Your task to perform on an android device: delete location history Image 0: 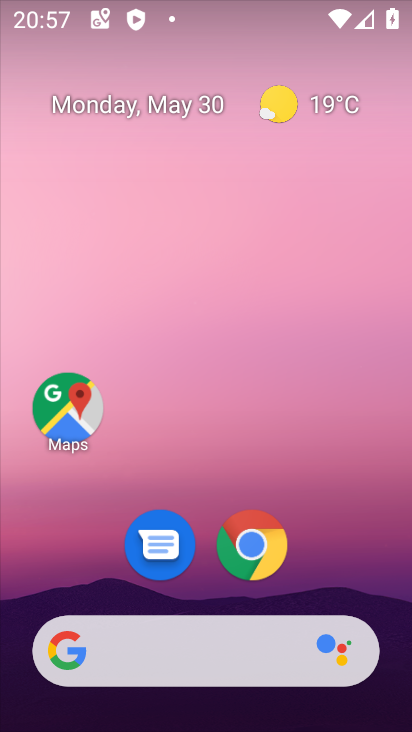
Step 0: drag from (339, 553) to (343, 107)
Your task to perform on an android device: delete location history Image 1: 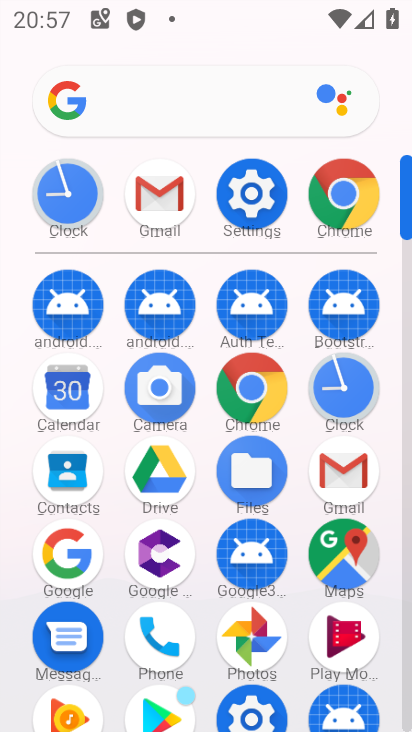
Step 1: click (255, 712)
Your task to perform on an android device: delete location history Image 2: 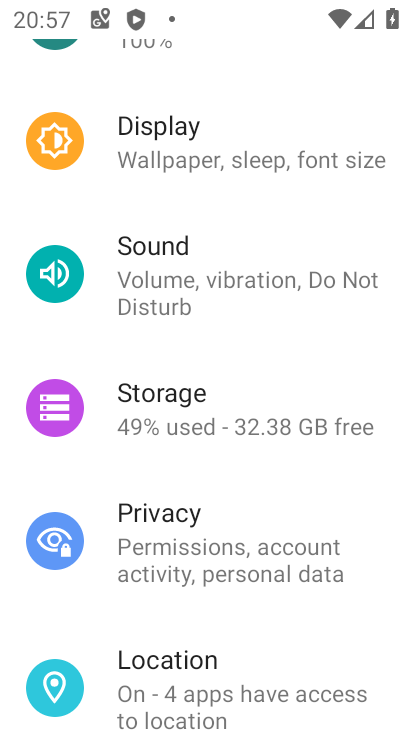
Step 2: click (218, 688)
Your task to perform on an android device: delete location history Image 3: 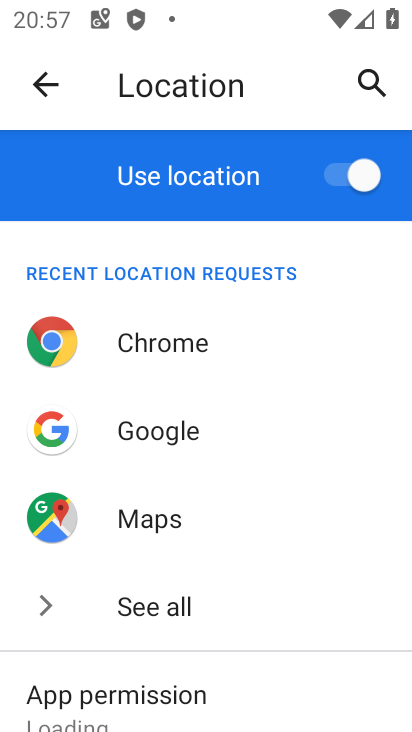
Step 3: drag from (273, 634) to (290, 352)
Your task to perform on an android device: delete location history Image 4: 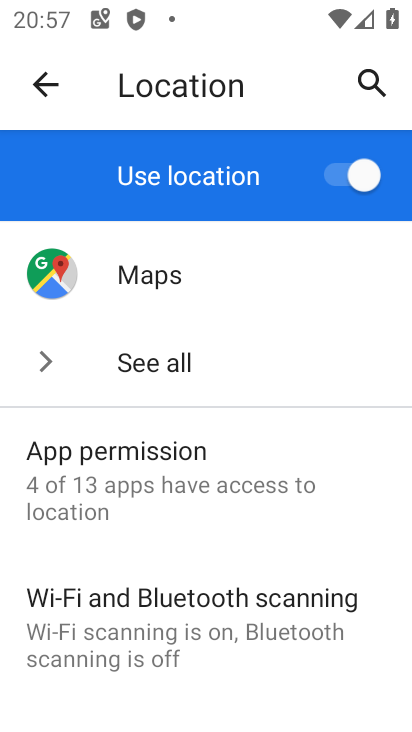
Step 4: drag from (291, 556) to (321, 220)
Your task to perform on an android device: delete location history Image 5: 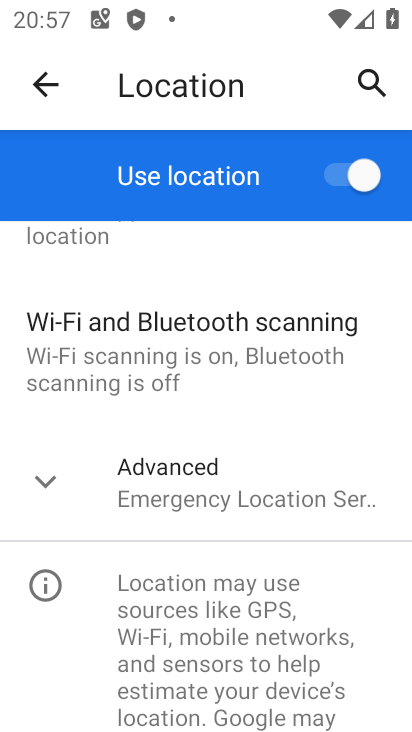
Step 5: click (262, 492)
Your task to perform on an android device: delete location history Image 6: 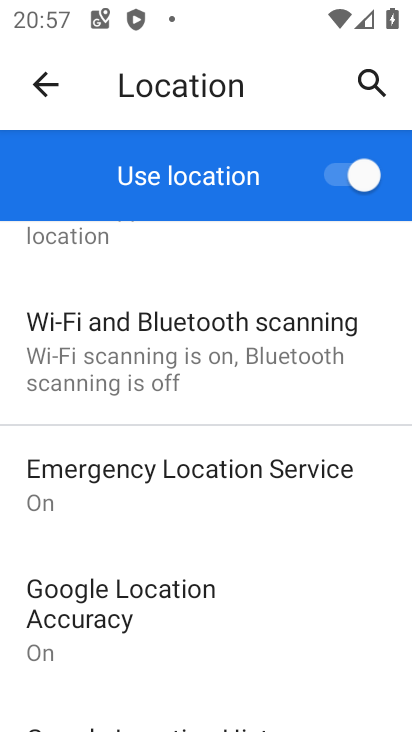
Step 6: drag from (284, 614) to (280, 414)
Your task to perform on an android device: delete location history Image 7: 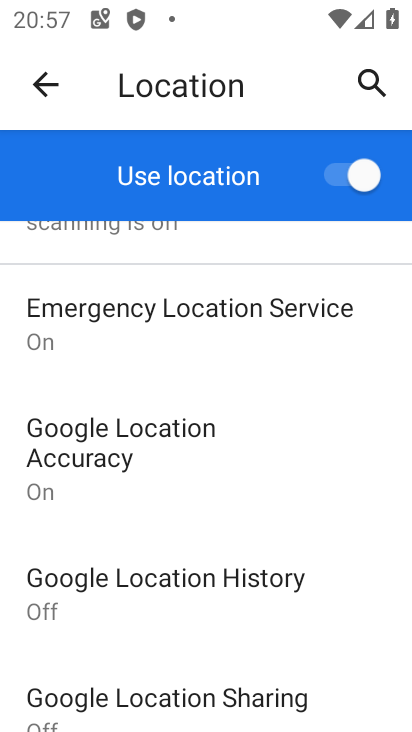
Step 7: click (179, 585)
Your task to perform on an android device: delete location history Image 8: 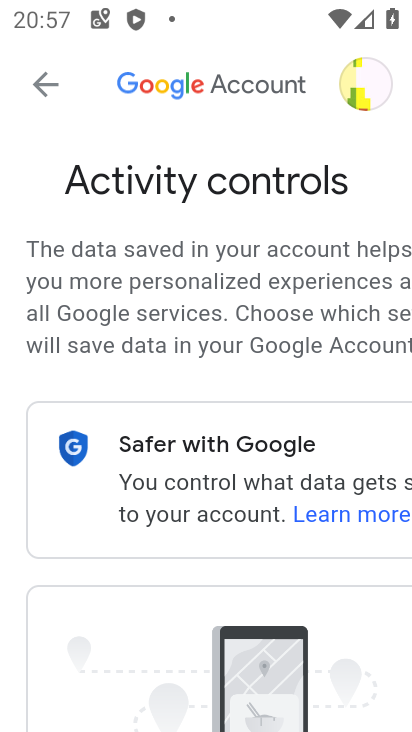
Step 8: drag from (317, 600) to (280, 362)
Your task to perform on an android device: delete location history Image 9: 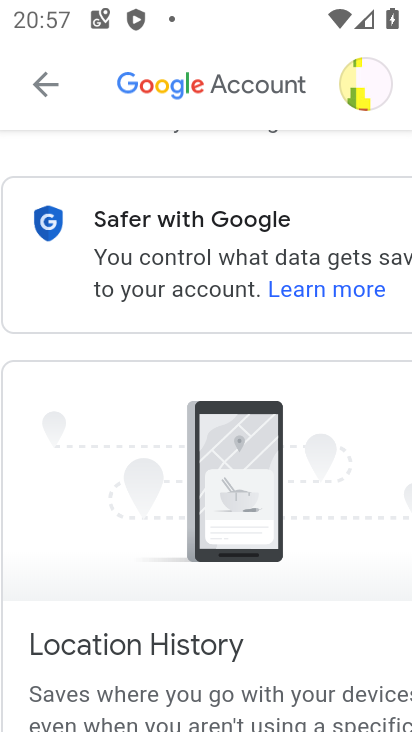
Step 9: drag from (290, 613) to (269, 404)
Your task to perform on an android device: delete location history Image 10: 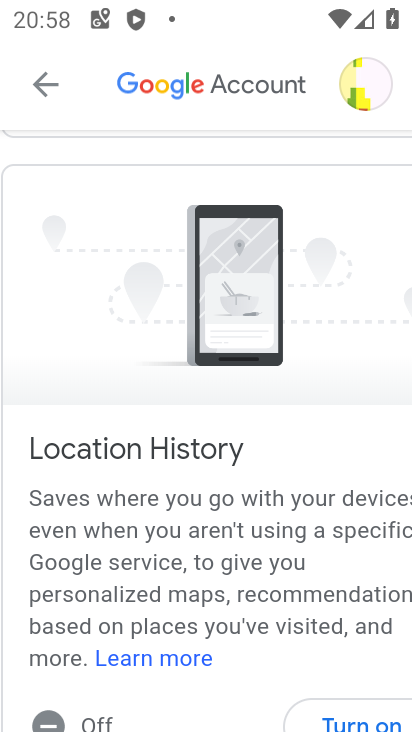
Step 10: drag from (269, 679) to (279, 421)
Your task to perform on an android device: delete location history Image 11: 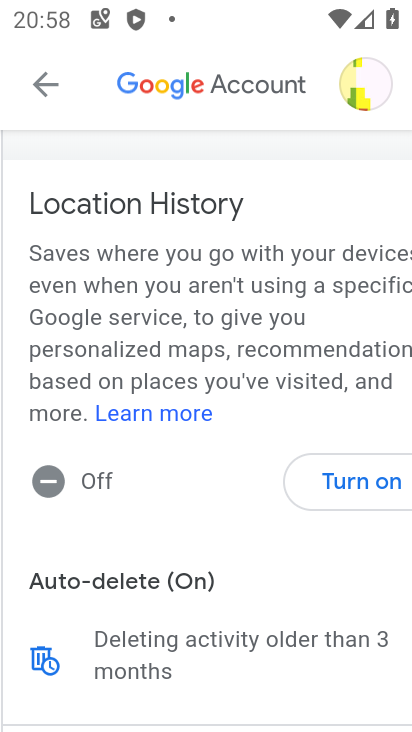
Step 11: drag from (273, 582) to (300, 338)
Your task to perform on an android device: delete location history Image 12: 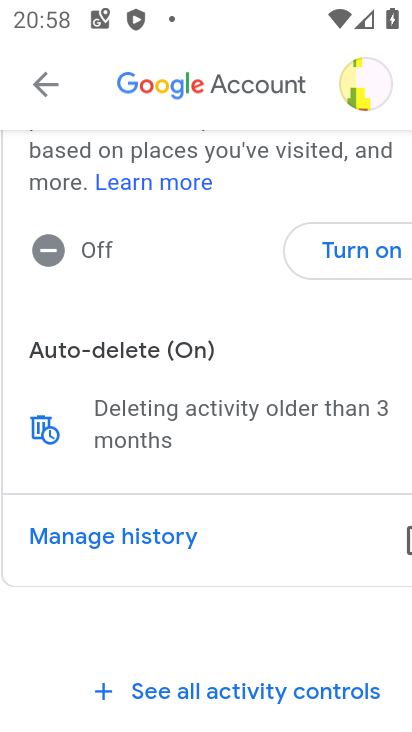
Step 12: click (155, 539)
Your task to perform on an android device: delete location history Image 13: 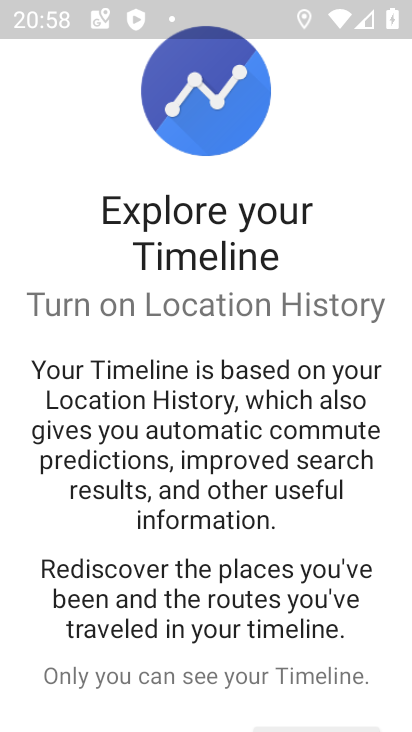
Step 13: drag from (284, 554) to (275, 374)
Your task to perform on an android device: delete location history Image 14: 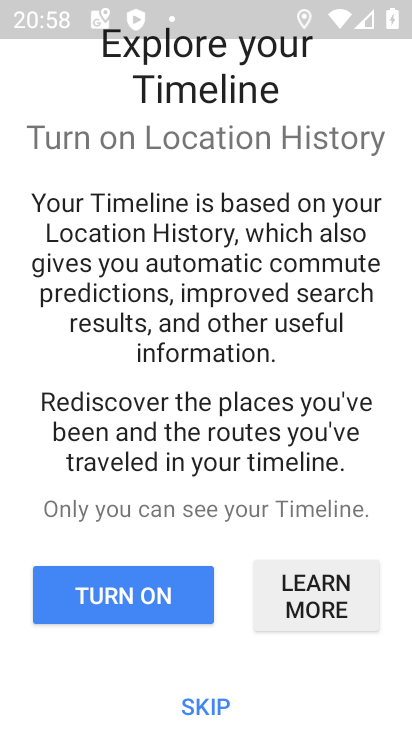
Step 14: click (173, 613)
Your task to perform on an android device: delete location history Image 15: 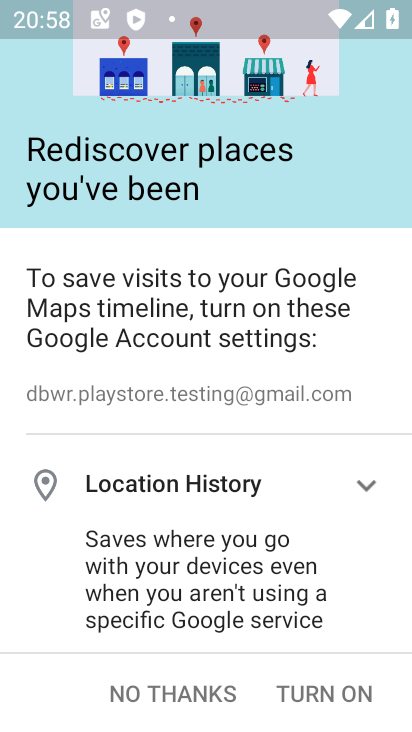
Step 15: drag from (253, 591) to (280, 340)
Your task to perform on an android device: delete location history Image 16: 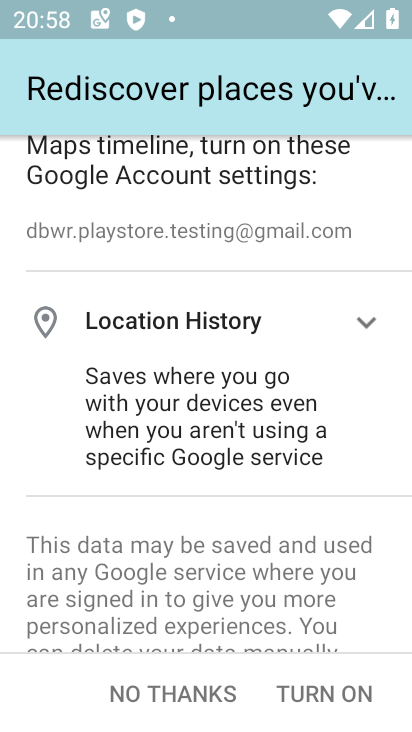
Step 16: click (318, 693)
Your task to perform on an android device: delete location history Image 17: 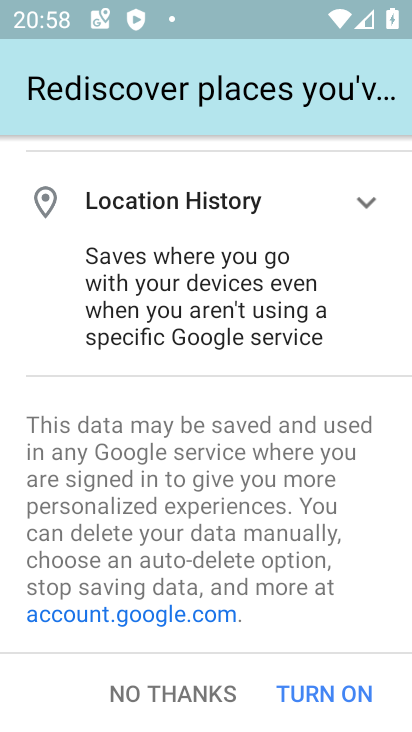
Step 17: click (317, 692)
Your task to perform on an android device: delete location history Image 18: 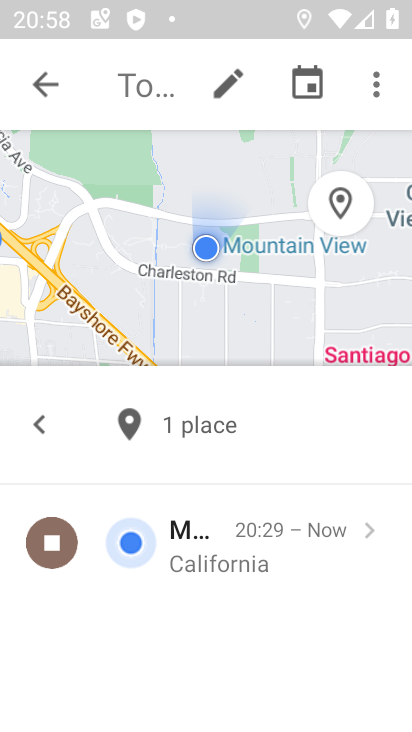
Step 18: click (387, 87)
Your task to perform on an android device: delete location history Image 19: 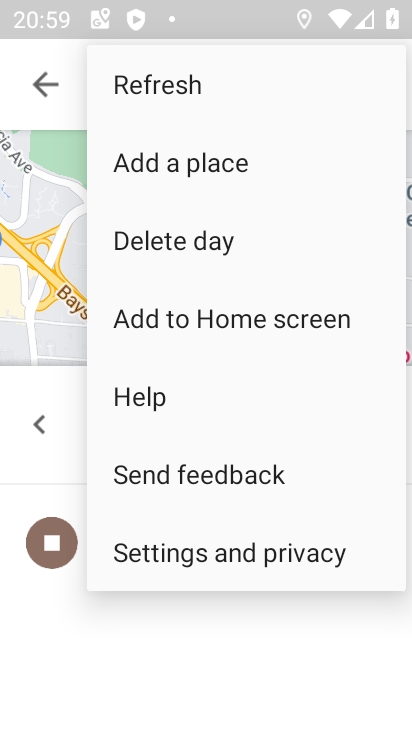
Step 19: click (229, 543)
Your task to perform on an android device: delete location history Image 20: 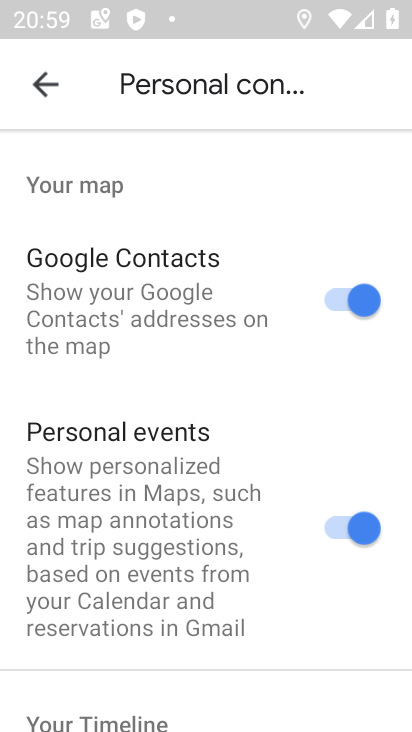
Step 20: drag from (233, 596) to (210, 308)
Your task to perform on an android device: delete location history Image 21: 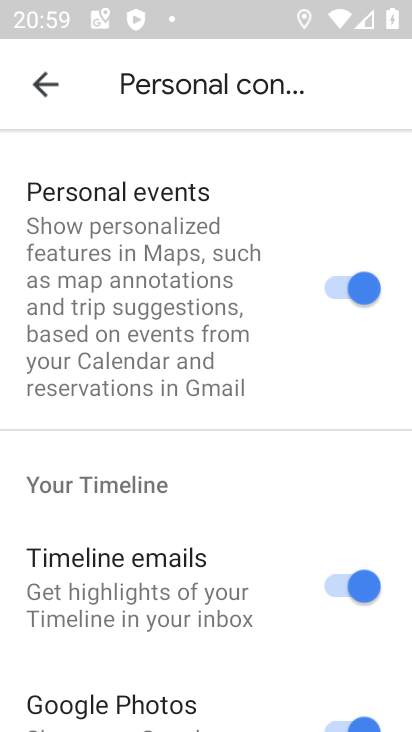
Step 21: drag from (192, 648) to (194, 356)
Your task to perform on an android device: delete location history Image 22: 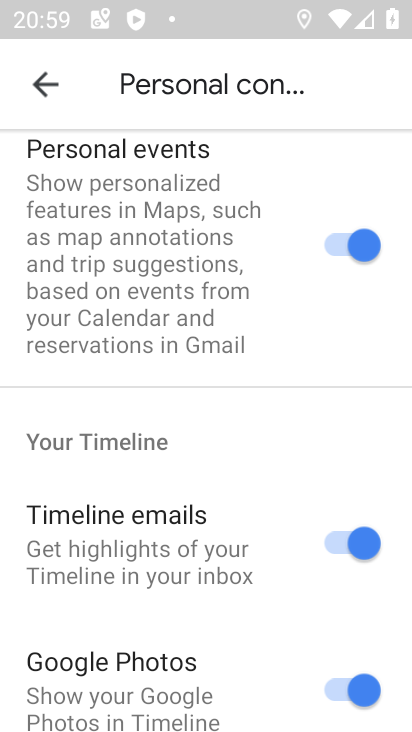
Step 22: drag from (181, 636) to (156, 368)
Your task to perform on an android device: delete location history Image 23: 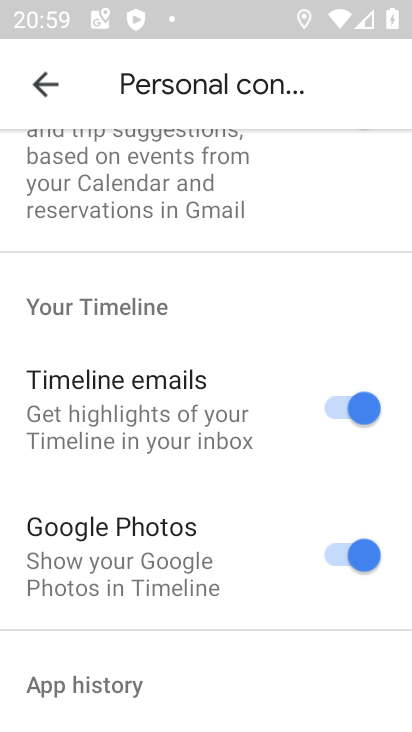
Step 23: drag from (193, 634) to (184, 260)
Your task to perform on an android device: delete location history Image 24: 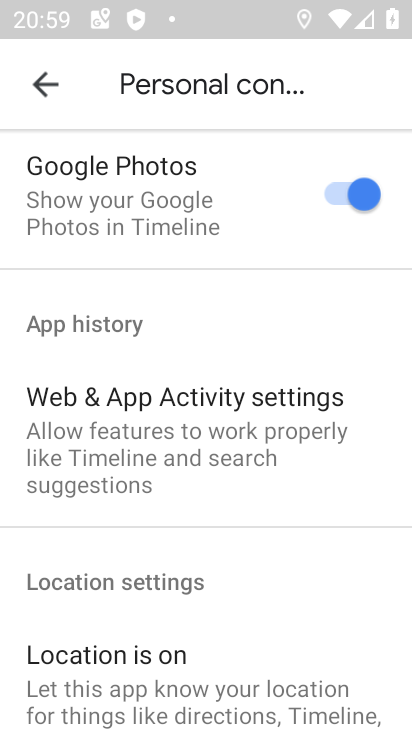
Step 24: drag from (219, 609) to (234, 170)
Your task to perform on an android device: delete location history Image 25: 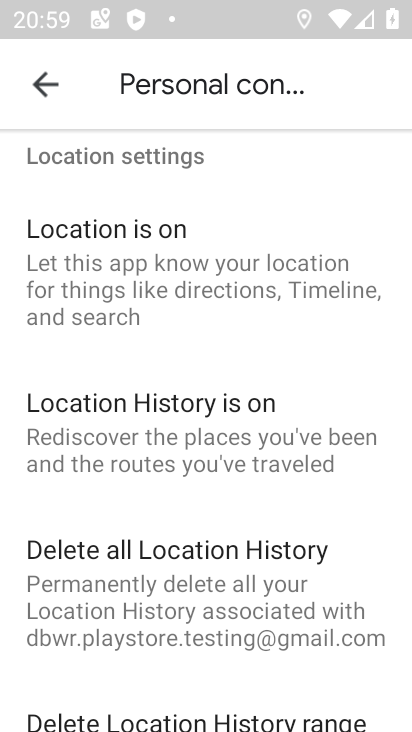
Step 25: click (201, 589)
Your task to perform on an android device: delete location history Image 26: 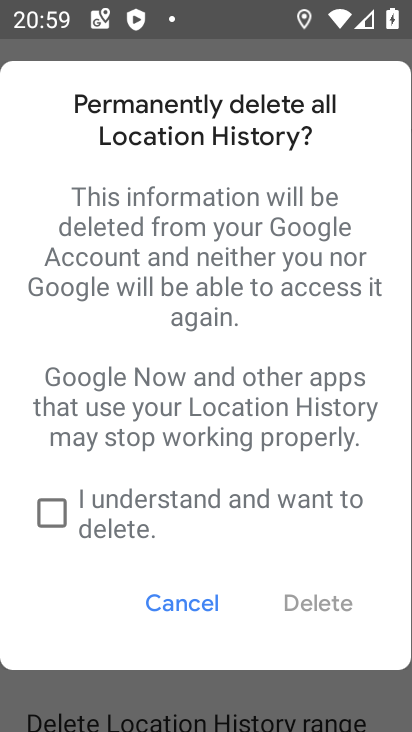
Step 26: click (57, 505)
Your task to perform on an android device: delete location history Image 27: 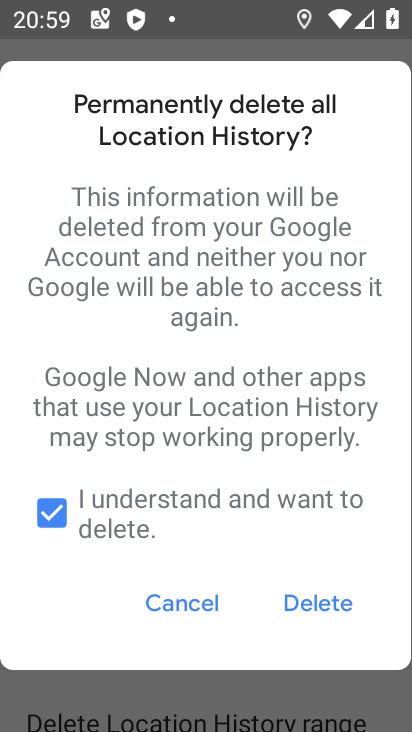
Step 27: click (314, 605)
Your task to perform on an android device: delete location history Image 28: 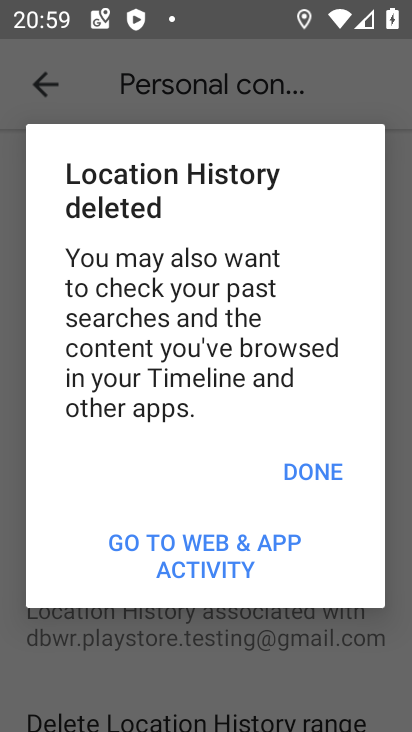
Step 28: click (312, 472)
Your task to perform on an android device: delete location history Image 29: 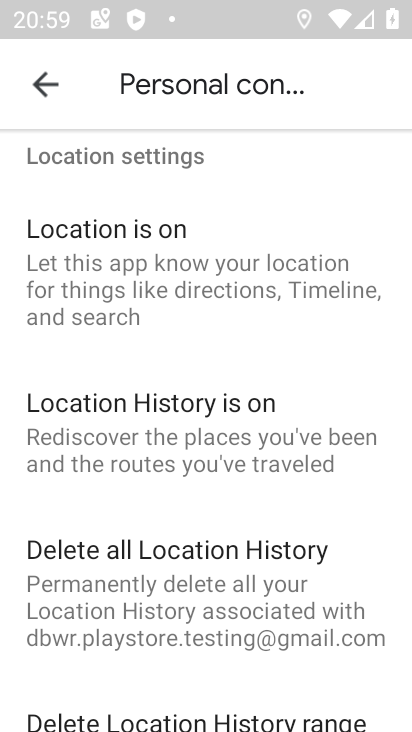
Step 29: task complete